Your task to perform on an android device: move an email to a new category in the gmail app Image 0: 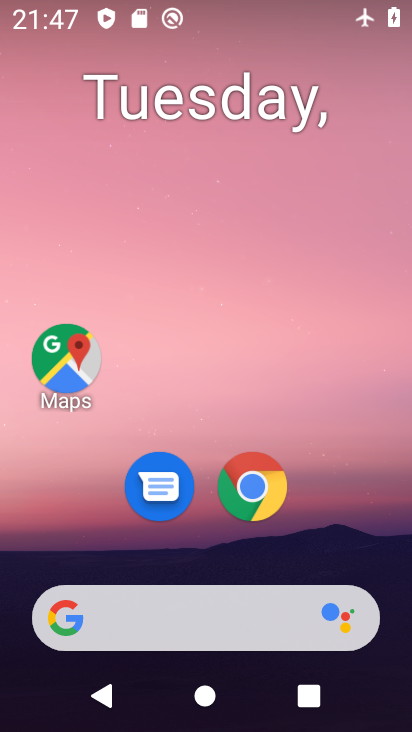
Step 0: press home button
Your task to perform on an android device: move an email to a new category in the gmail app Image 1: 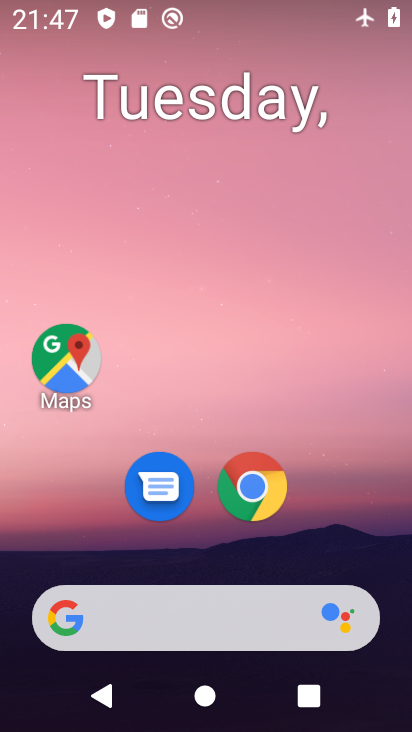
Step 1: drag from (352, 532) to (370, 266)
Your task to perform on an android device: move an email to a new category in the gmail app Image 2: 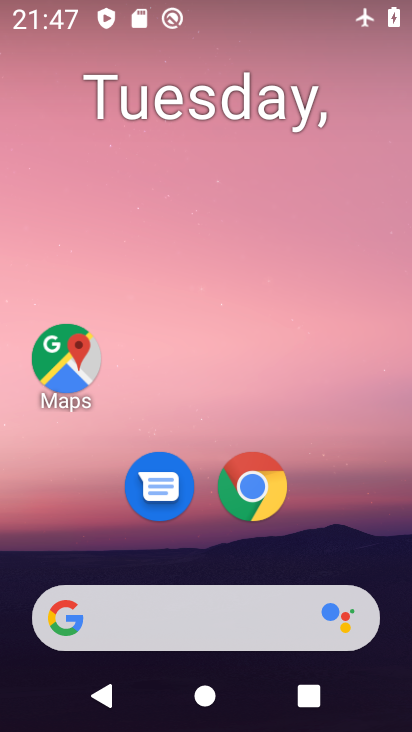
Step 2: drag from (371, 514) to (384, 184)
Your task to perform on an android device: move an email to a new category in the gmail app Image 3: 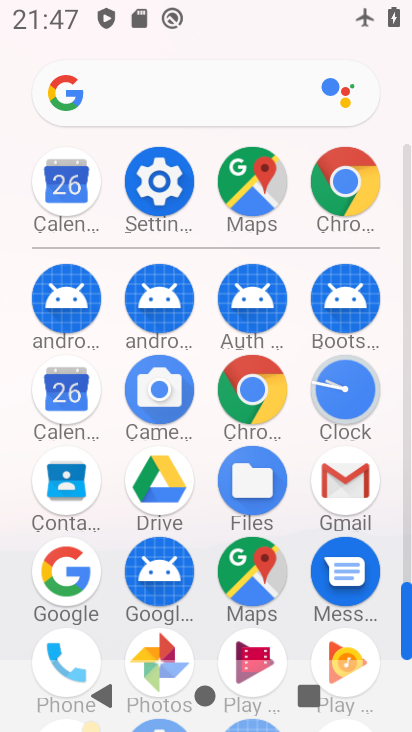
Step 3: click (340, 481)
Your task to perform on an android device: move an email to a new category in the gmail app Image 4: 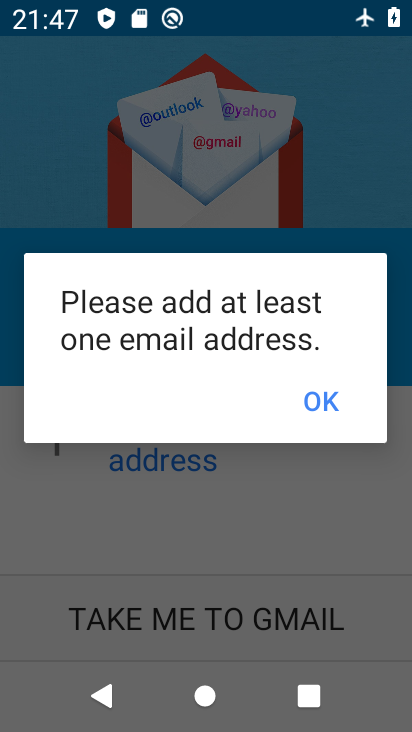
Step 4: task complete